Your task to perform on an android device: Go to Maps Image 0: 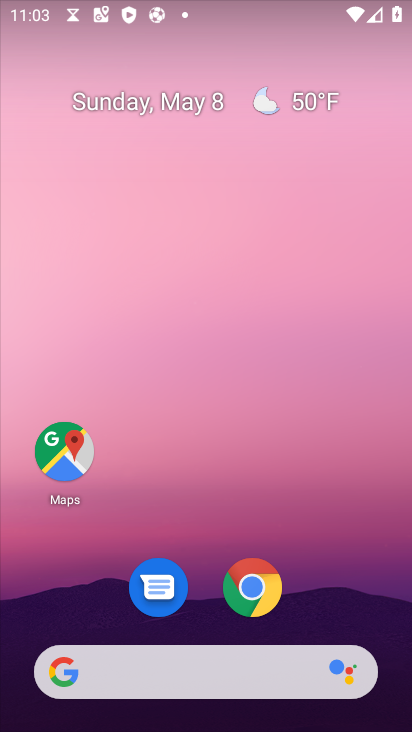
Step 0: click (75, 460)
Your task to perform on an android device: Go to Maps Image 1: 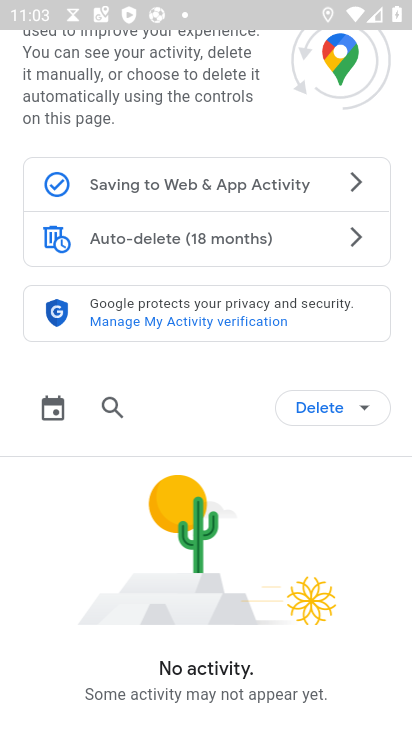
Step 1: task complete